Your task to perform on an android device: turn off data saver in the chrome app Image 0: 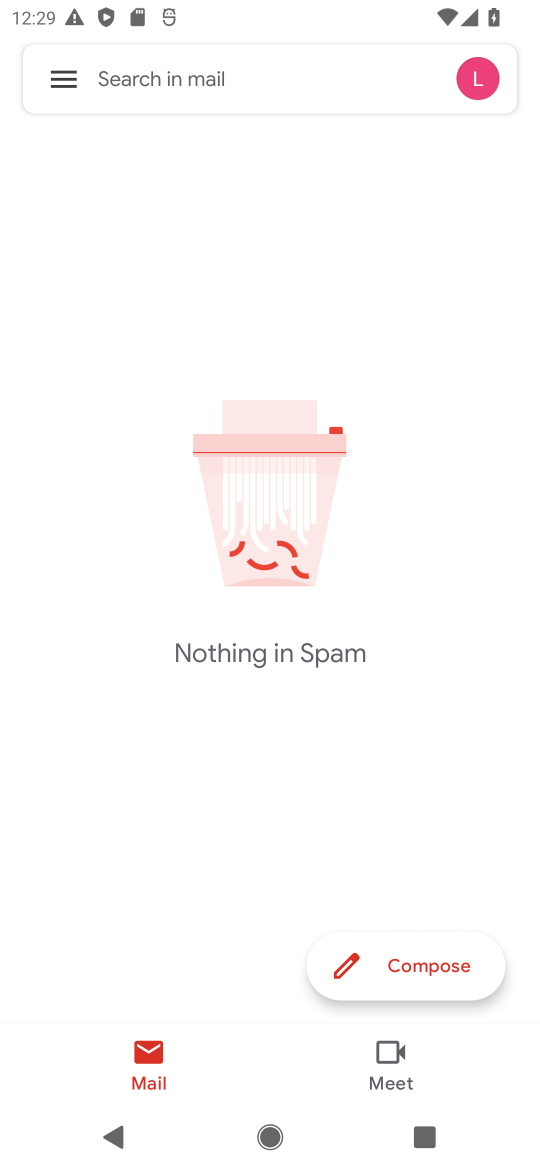
Step 0: press back button
Your task to perform on an android device: turn off data saver in the chrome app Image 1: 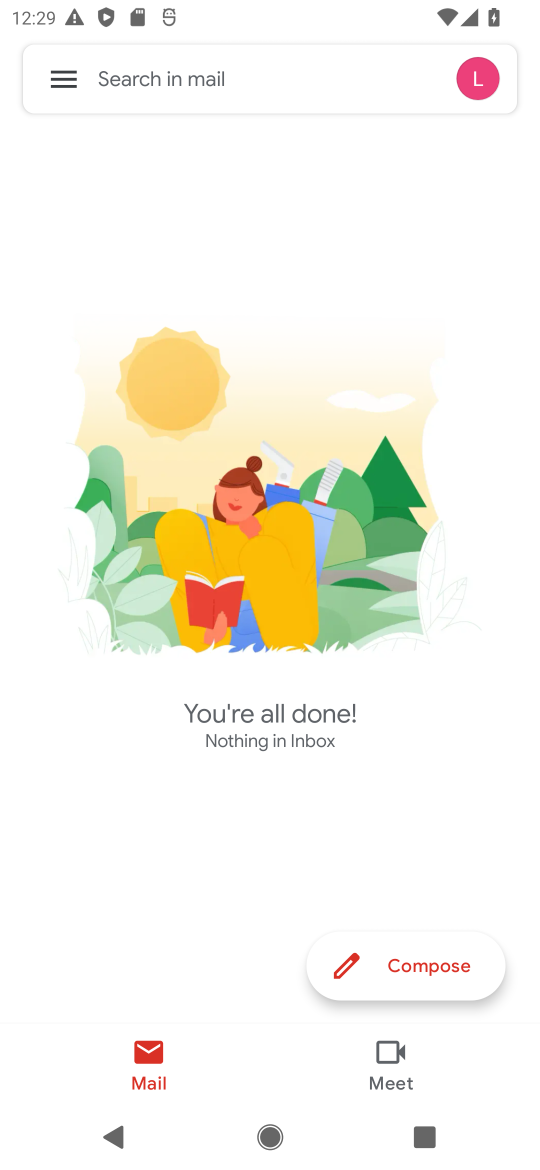
Step 1: press back button
Your task to perform on an android device: turn off data saver in the chrome app Image 2: 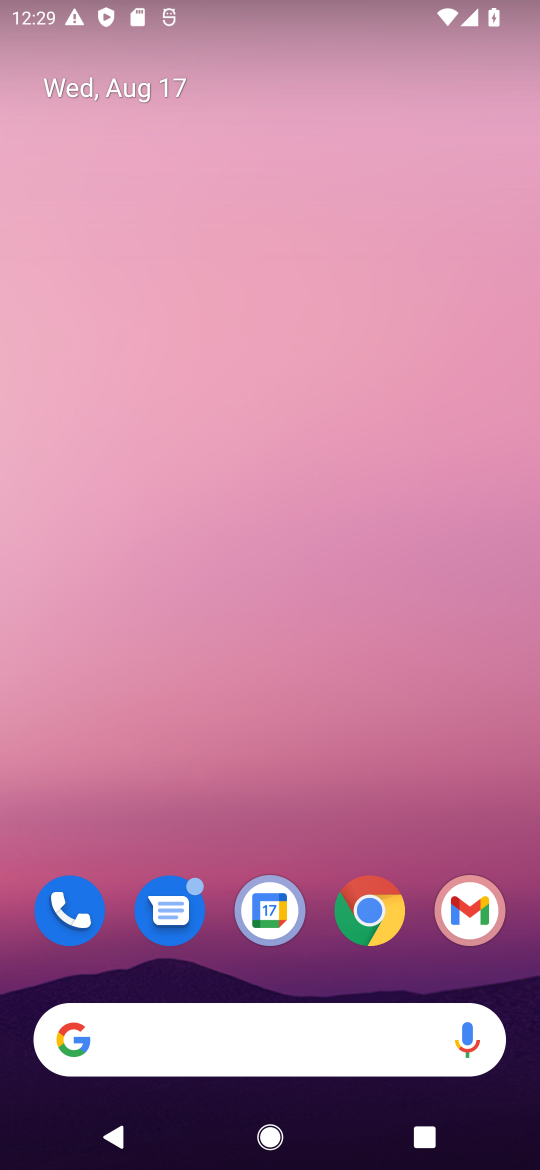
Step 2: click (367, 910)
Your task to perform on an android device: turn off data saver in the chrome app Image 3: 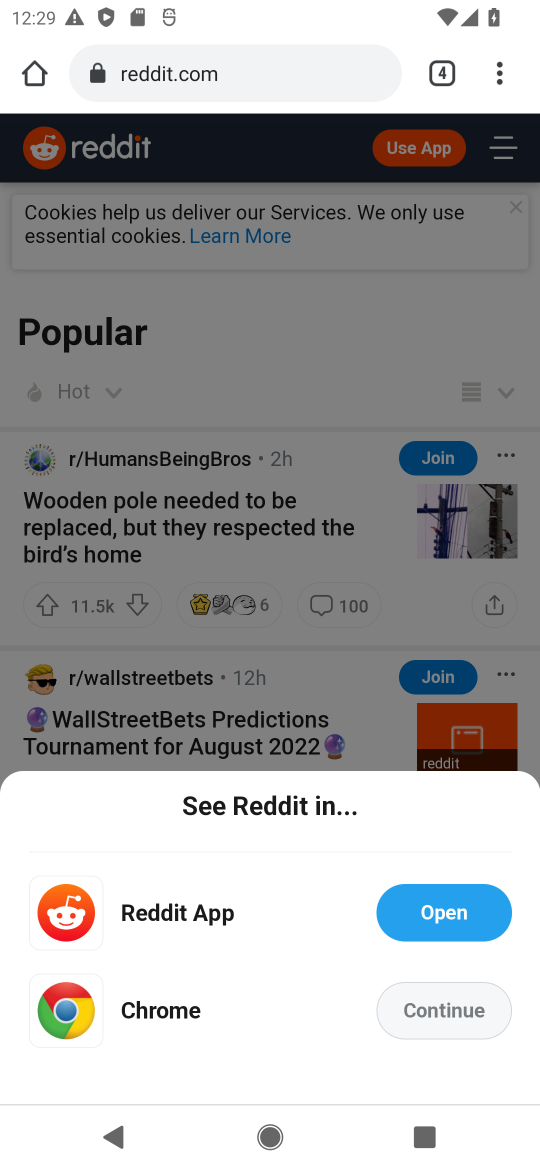
Step 3: drag from (496, 63) to (298, 930)
Your task to perform on an android device: turn off data saver in the chrome app Image 4: 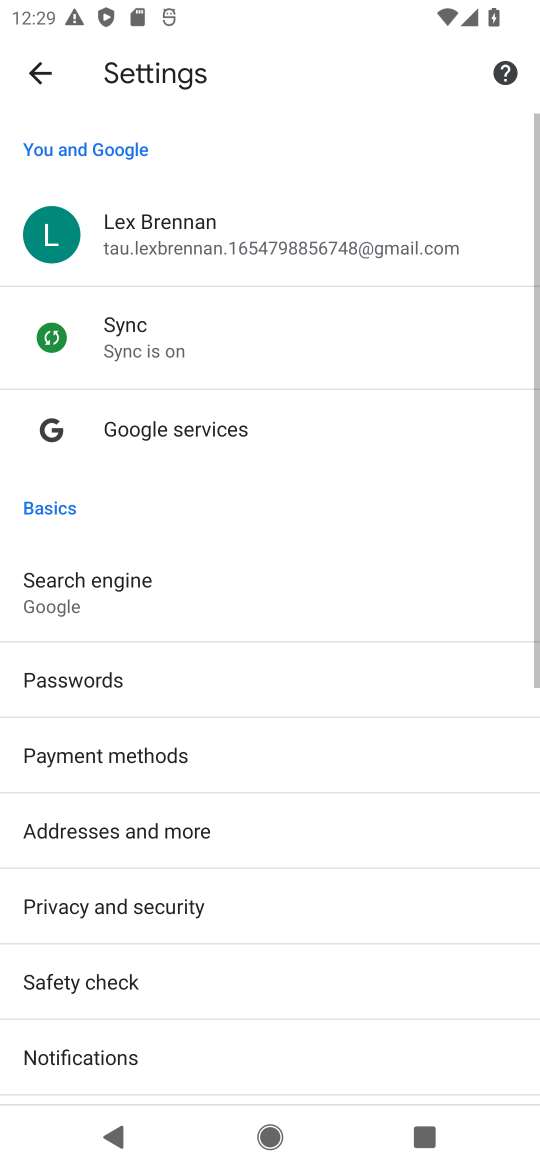
Step 4: drag from (152, 995) to (419, 82)
Your task to perform on an android device: turn off data saver in the chrome app Image 5: 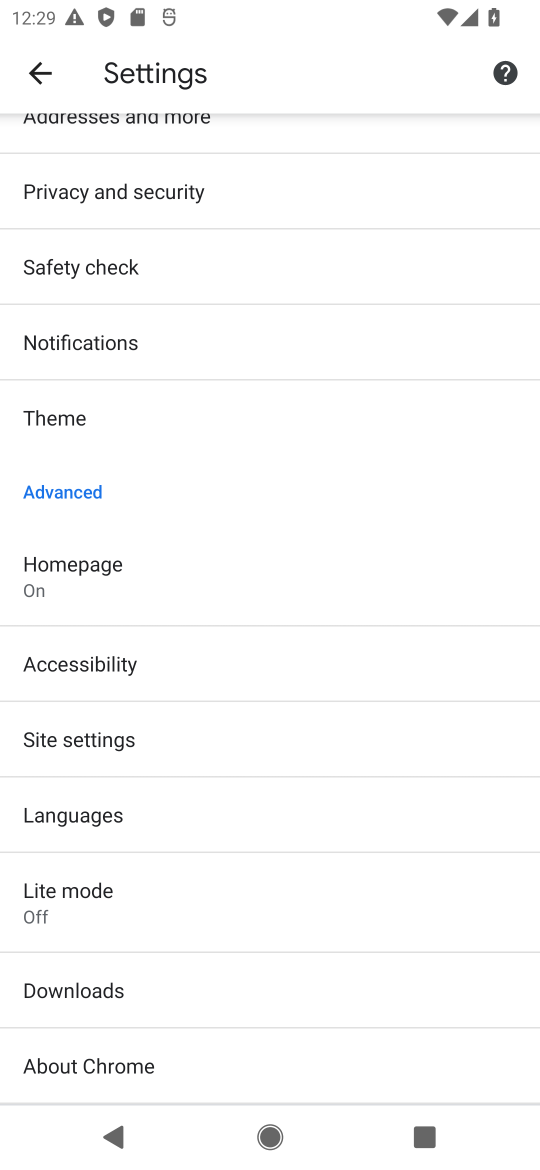
Step 5: click (107, 894)
Your task to perform on an android device: turn off data saver in the chrome app Image 6: 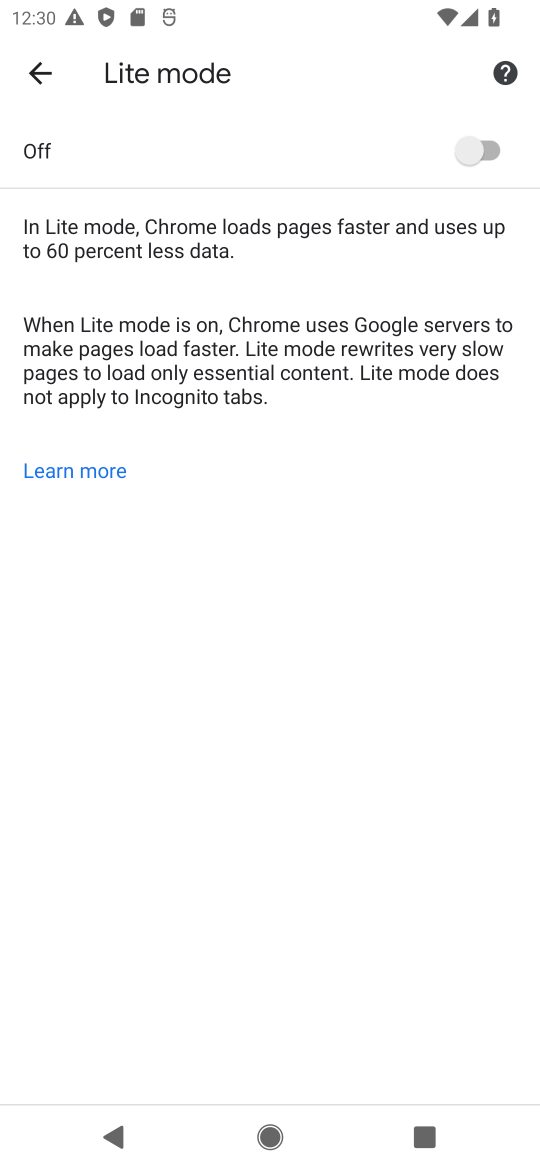
Step 6: task complete